Your task to perform on an android device: turn off picture-in-picture Image 0: 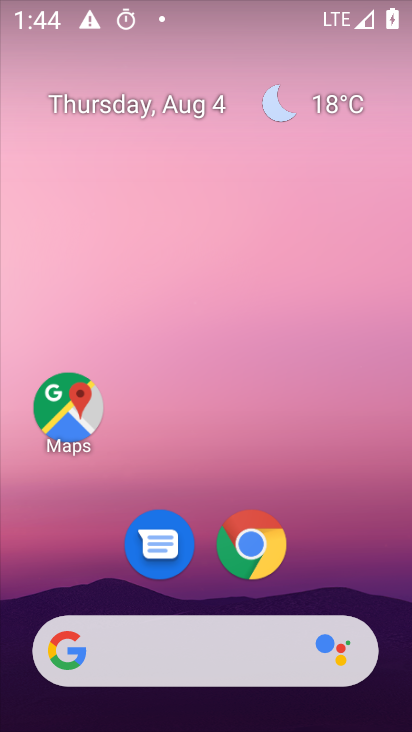
Step 0: click (251, 537)
Your task to perform on an android device: turn off picture-in-picture Image 1: 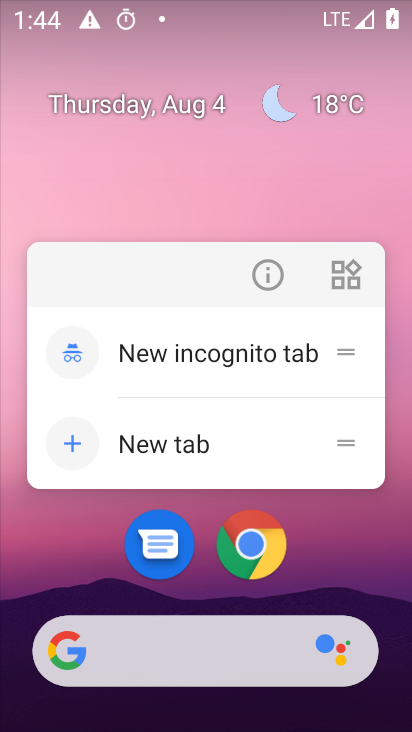
Step 1: click (276, 273)
Your task to perform on an android device: turn off picture-in-picture Image 2: 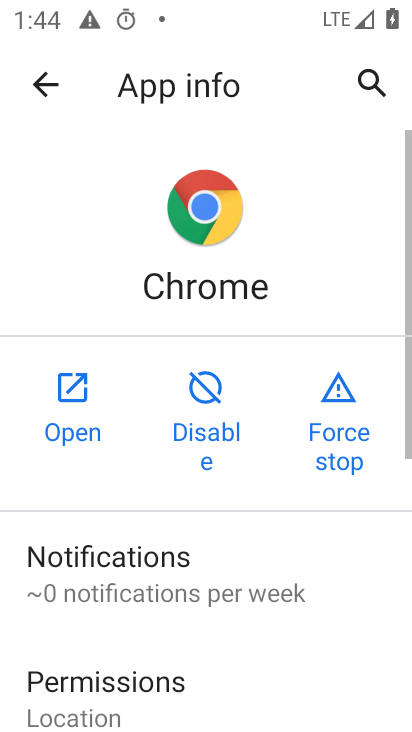
Step 2: drag from (267, 704) to (263, 161)
Your task to perform on an android device: turn off picture-in-picture Image 3: 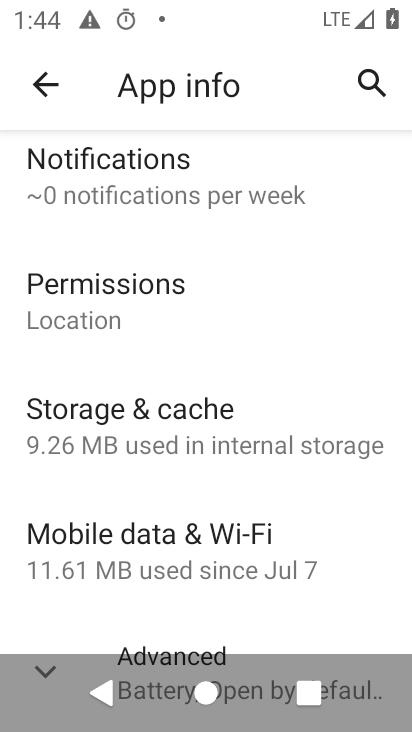
Step 3: click (37, 667)
Your task to perform on an android device: turn off picture-in-picture Image 4: 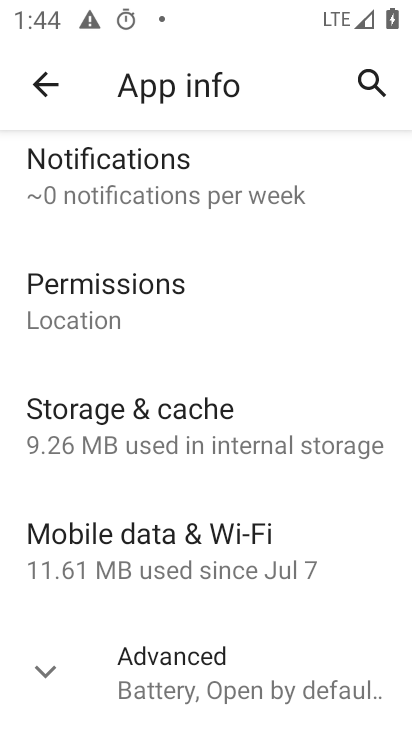
Step 4: click (47, 667)
Your task to perform on an android device: turn off picture-in-picture Image 5: 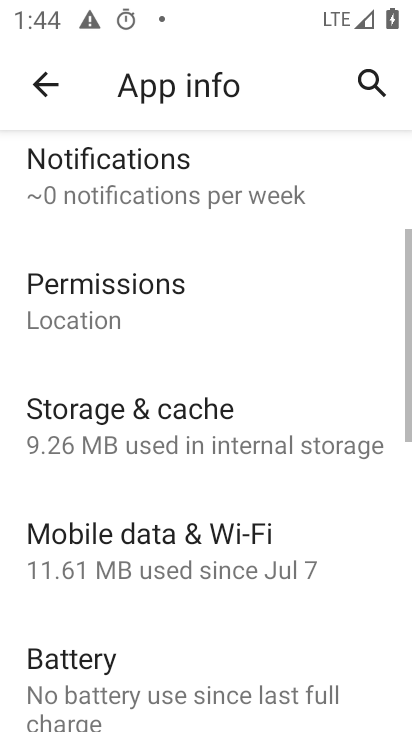
Step 5: drag from (327, 644) to (298, 220)
Your task to perform on an android device: turn off picture-in-picture Image 6: 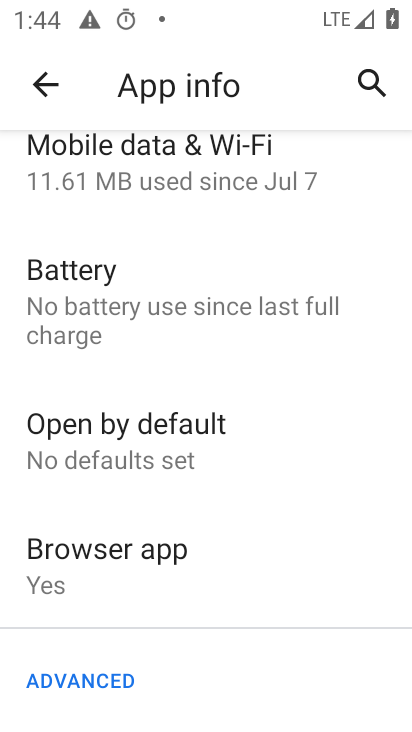
Step 6: drag from (230, 662) to (229, 291)
Your task to perform on an android device: turn off picture-in-picture Image 7: 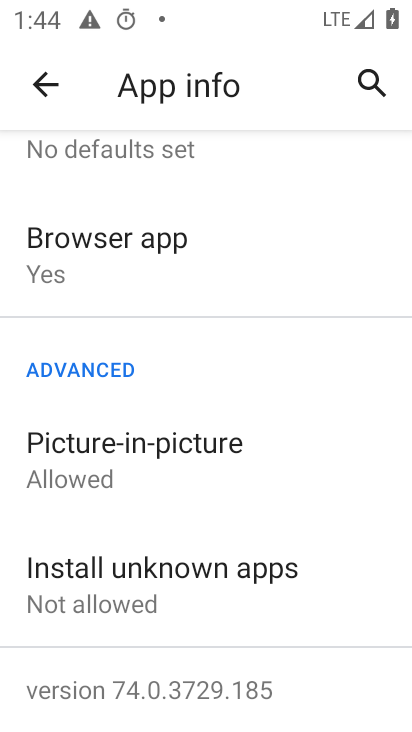
Step 7: drag from (242, 482) to (257, 233)
Your task to perform on an android device: turn off picture-in-picture Image 8: 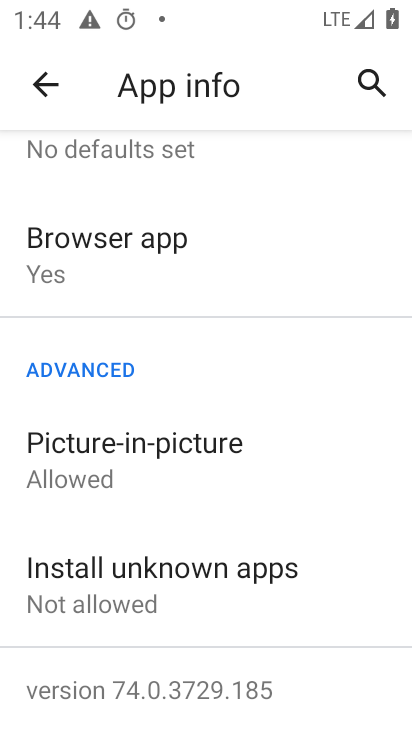
Step 8: click (101, 446)
Your task to perform on an android device: turn off picture-in-picture Image 9: 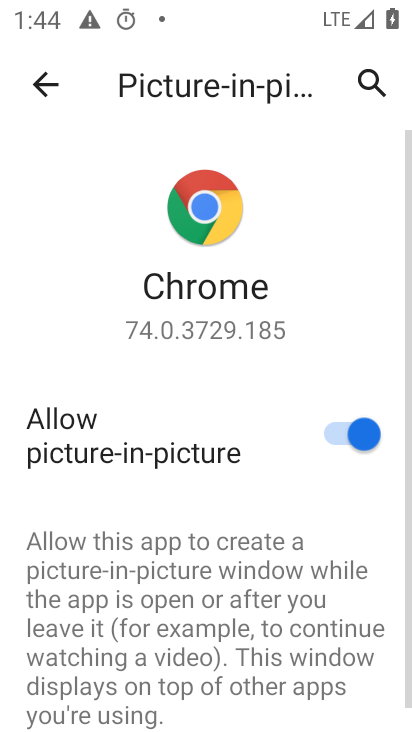
Step 9: click (327, 434)
Your task to perform on an android device: turn off picture-in-picture Image 10: 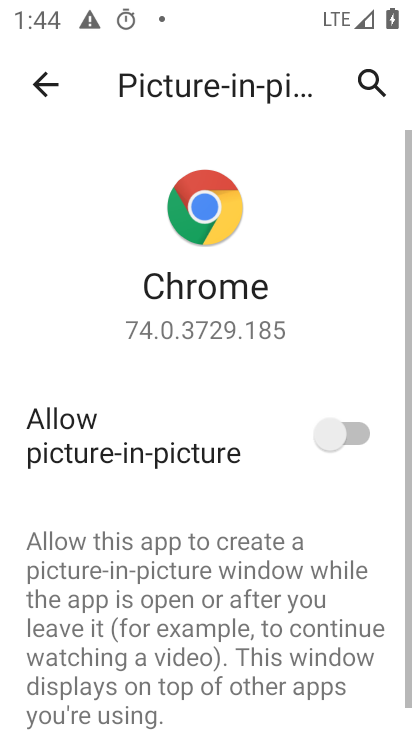
Step 10: task complete